Your task to perform on an android device: turn on javascript in the chrome app Image 0: 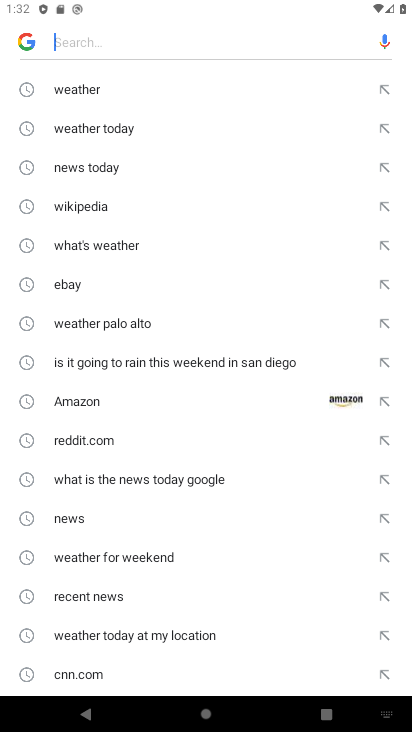
Step 0: press back button
Your task to perform on an android device: turn on javascript in the chrome app Image 1: 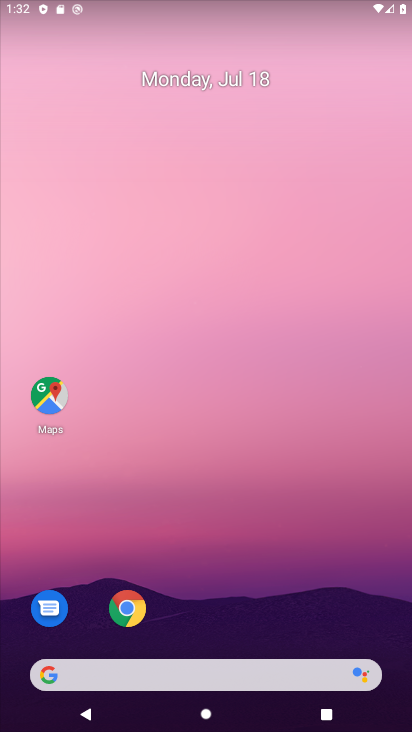
Step 1: click (129, 619)
Your task to perform on an android device: turn on javascript in the chrome app Image 2: 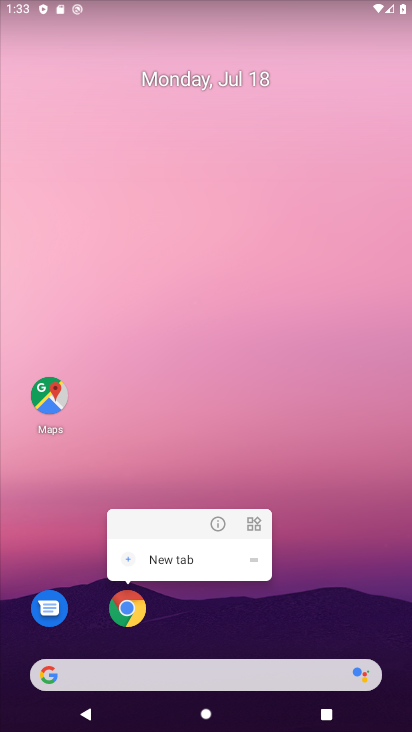
Step 2: click (130, 599)
Your task to perform on an android device: turn on javascript in the chrome app Image 3: 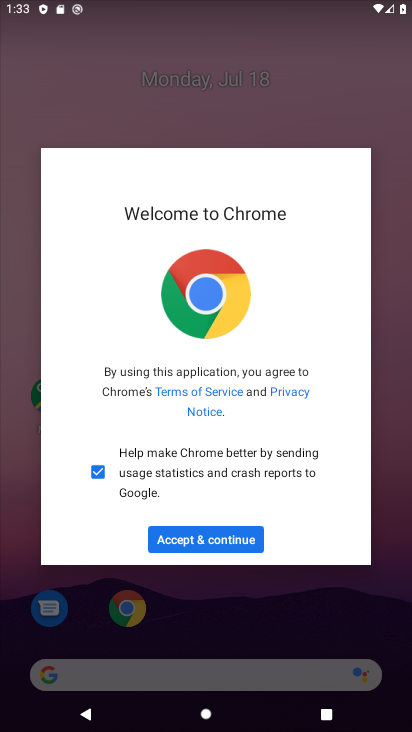
Step 3: click (194, 550)
Your task to perform on an android device: turn on javascript in the chrome app Image 4: 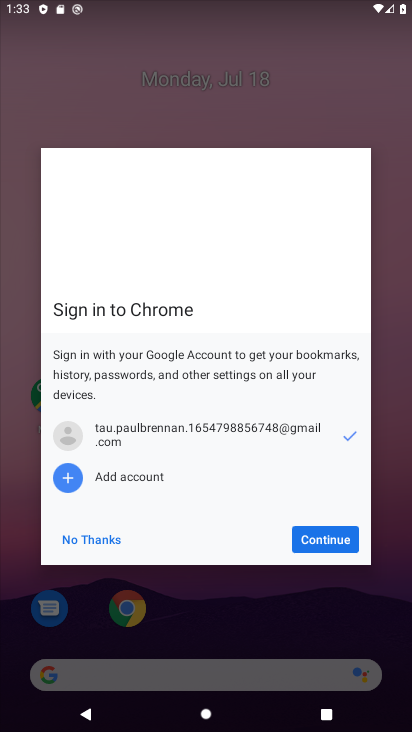
Step 4: click (314, 534)
Your task to perform on an android device: turn on javascript in the chrome app Image 5: 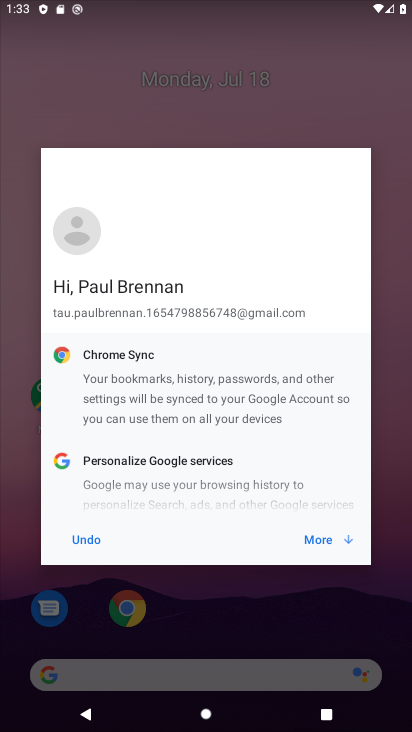
Step 5: click (322, 538)
Your task to perform on an android device: turn on javascript in the chrome app Image 6: 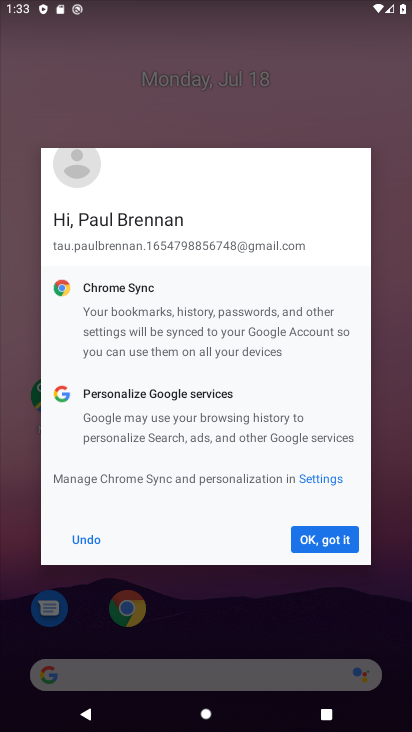
Step 6: click (314, 546)
Your task to perform on an android device: turn on javascript in the chrome app Image 7: 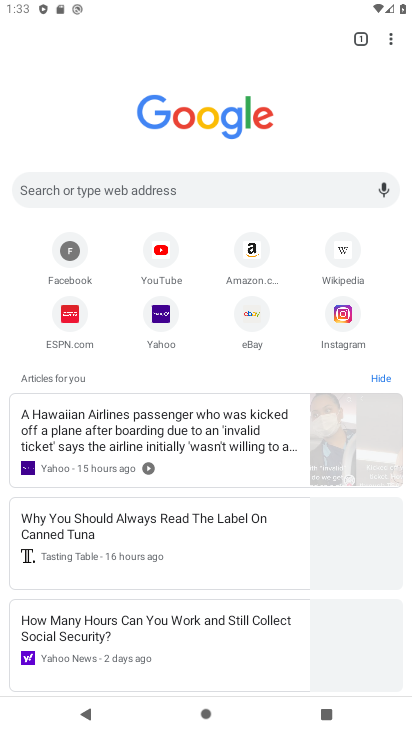
Step 7: drag from (391, 38) to (273, 322)
Your task to perform on an android device: turn on javascript in the chrome app Image 8: 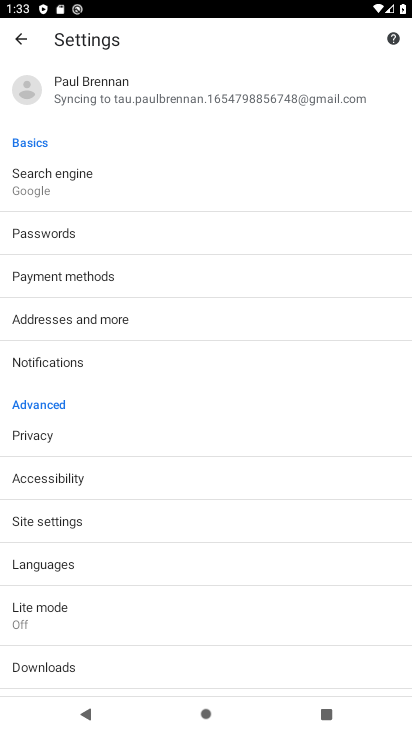
Step 8: click (67, 528)
Your task to perform on an android device: turn on javascript in the chrome app Image 9: 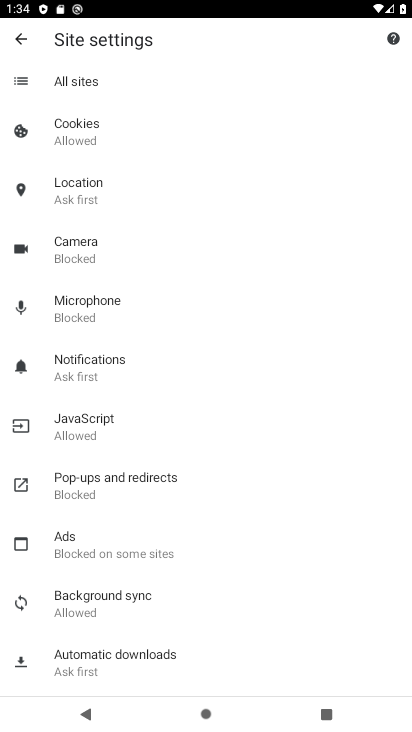
Step 9: click (102, 416)
Your task to perform on an android device: turn on javascript in the chrome app Image 10: 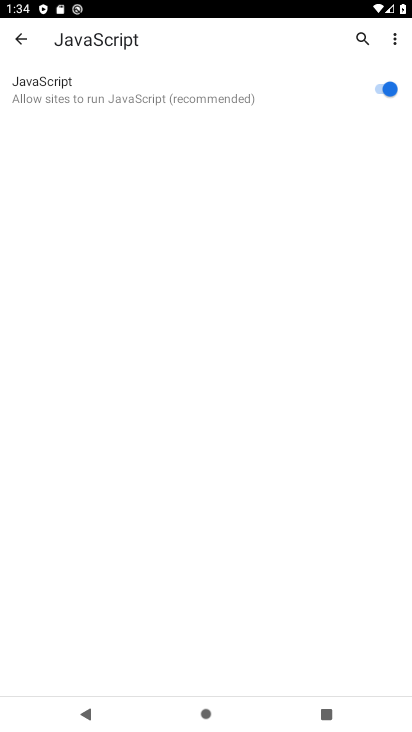
Step 10: task complete